Your task to perform on an android device: Open the web browser Image 0: 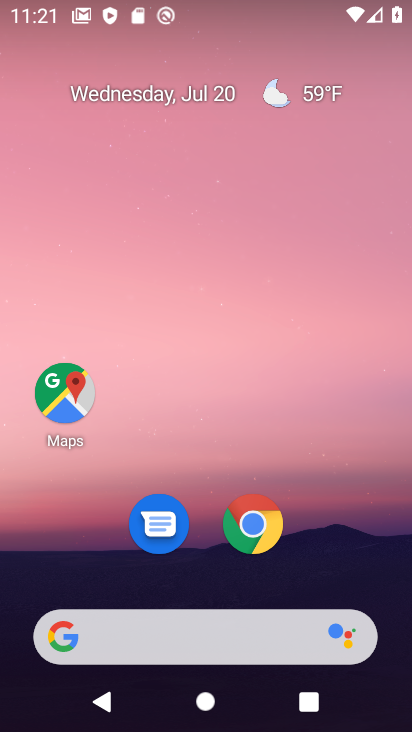
Step 0: press home button
Your task to perform on an android device: Open the web browser Image 1: 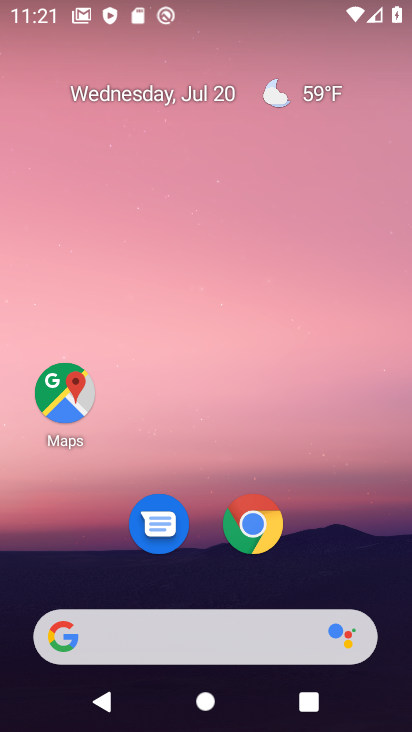
Step 1: click (250, 524)
Your task to perform on an android device: Open the web browser Image 2: 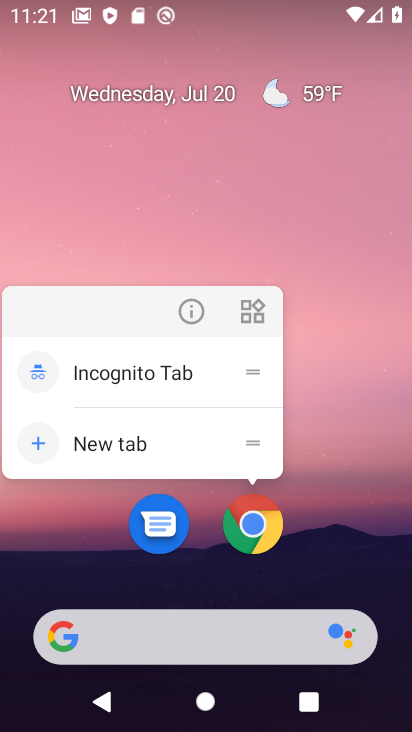
Step 2: click (250, 524)
Your task to perform on an android device: Open the web browser Image 3: 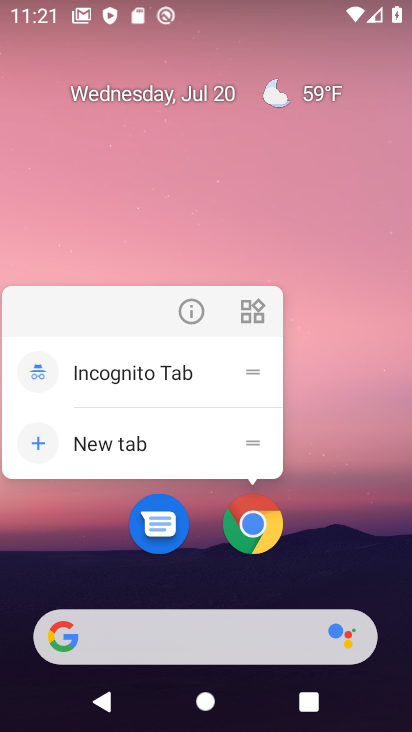
Step 3: click (250, 522)
Your task to perform on an android device: Open the web browser Image 4: 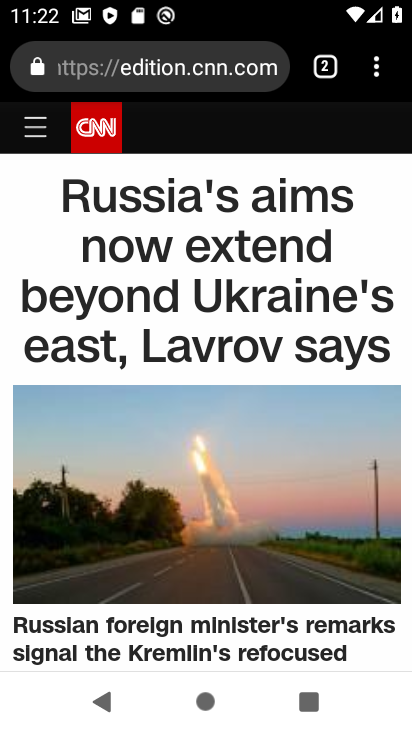
Step 4: task complete